Your task to perform on an android device: turn on showing notifications on the lock screen Image 0: 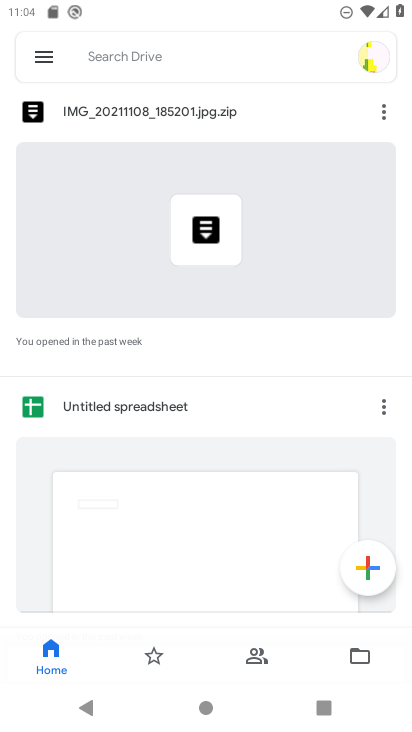
Step 0: press home button
Your task to perform on an android device: turn on showing notifications on the lock screen Image 1: 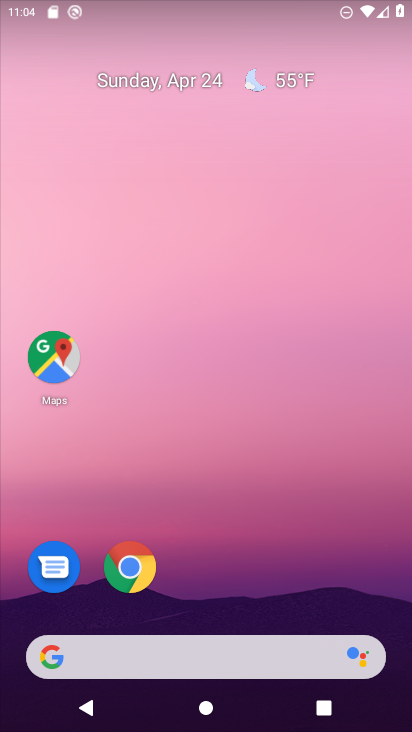
Step 1: drag from (390, 502) to (352, 218)
Your task to perform on an android device: turn on showing notifications on the lock screen Image 2: 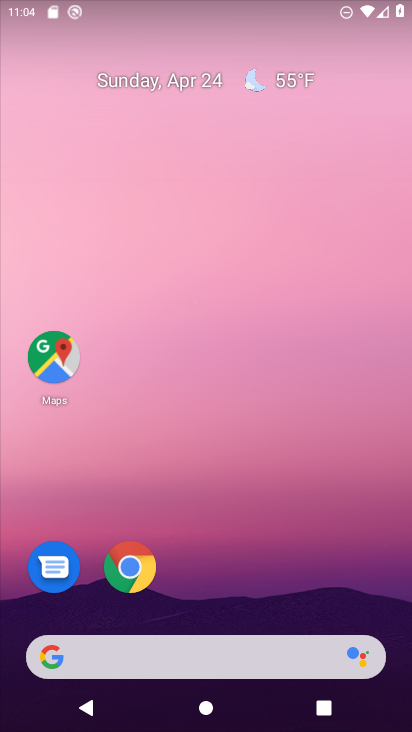
Step 2: drag from (393, 644) to (355, 239)
Your task to perform on an android device: turn on showing notifications on the lock screen Image 3: 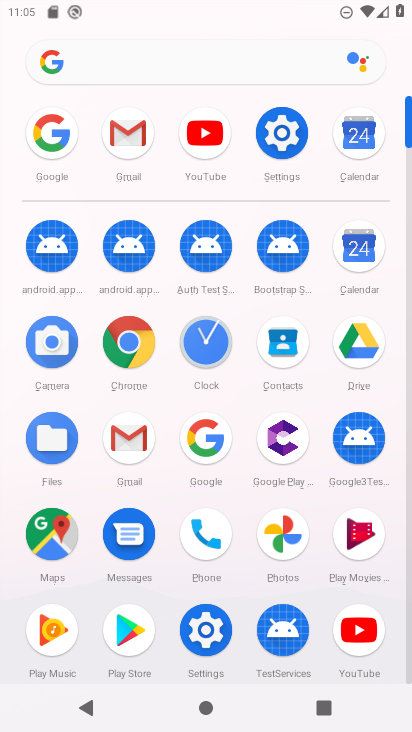
Step 3: click (279, 124)
Your task to perform on an android device: turn on showing notifications on the lock screen Image 4: 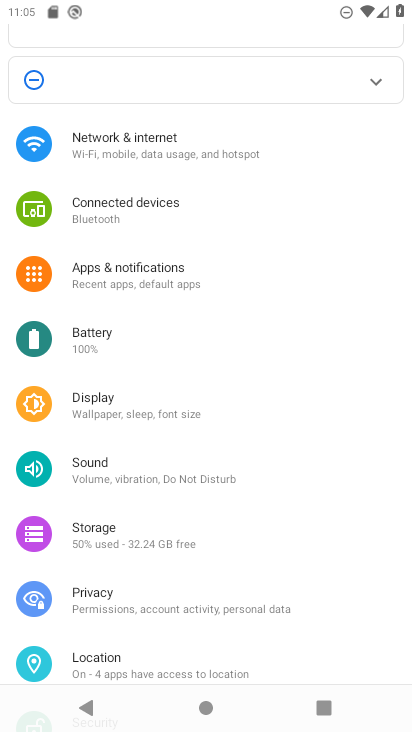
Step 4: click (143, 263)
Your task to perform on an android device: turn on showing notifications on the lock screen Image 5: 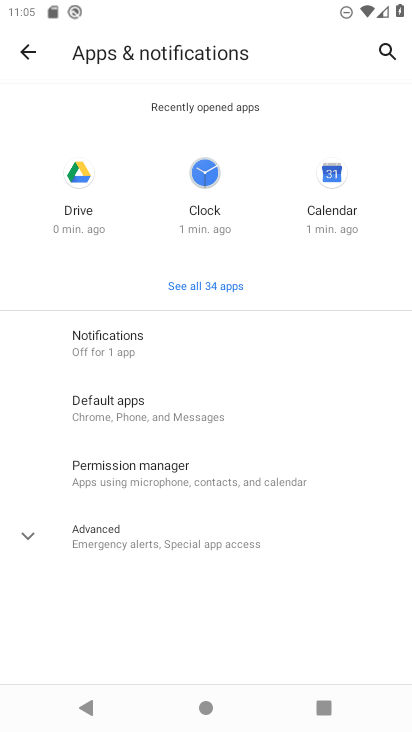
Step 5: click (106, 346)
Your task to perform on an android device: turn on showing notifications on the lock screen Image 6: 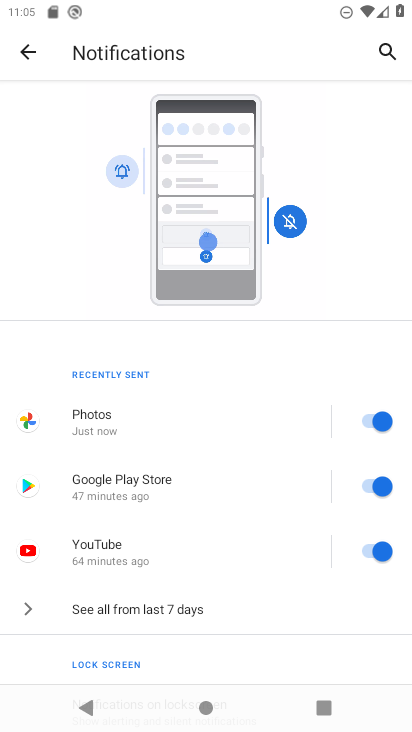
Step 6: drag from (246, 631) to (253, 299)
Your task to perform on an android device: turn on showing notifications on the lock screen Image 7: 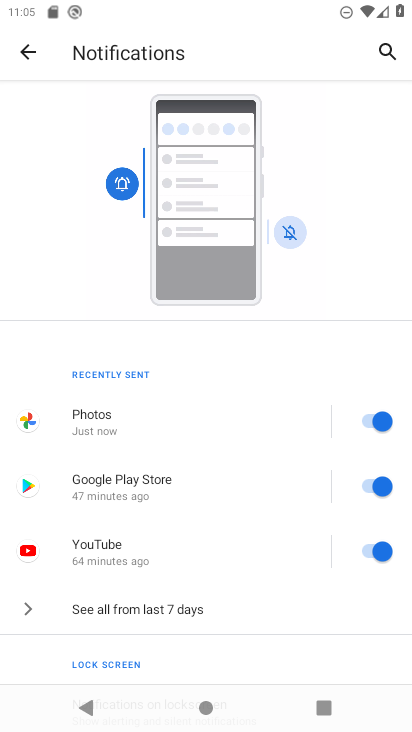
Step 7: click (225, 165)
Your task to perform on an android device: turn on showing notifications on the lock screen Image 8: 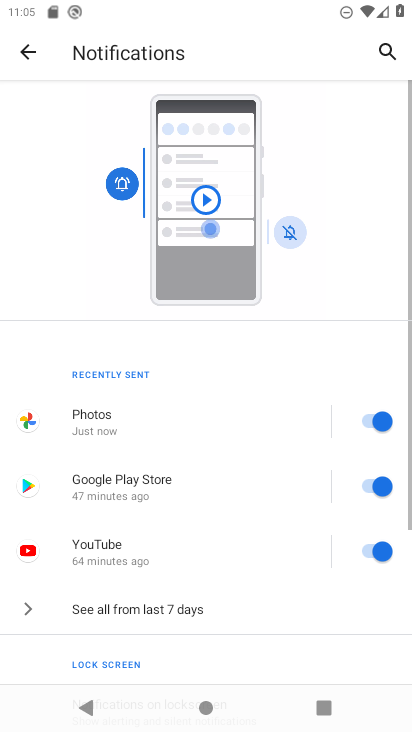
Step 8: click (243, 77)
Your task to perform on an android device: turn on showing notifications on the lock screen Image 9: 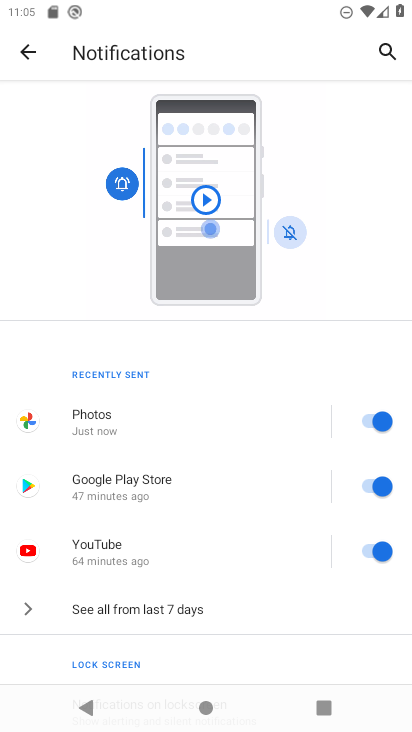
Step 9: drag from (260, 637) to (223, 199)
Your task to perform on an android device: turn on showing notifications on the lock screen Image 10: 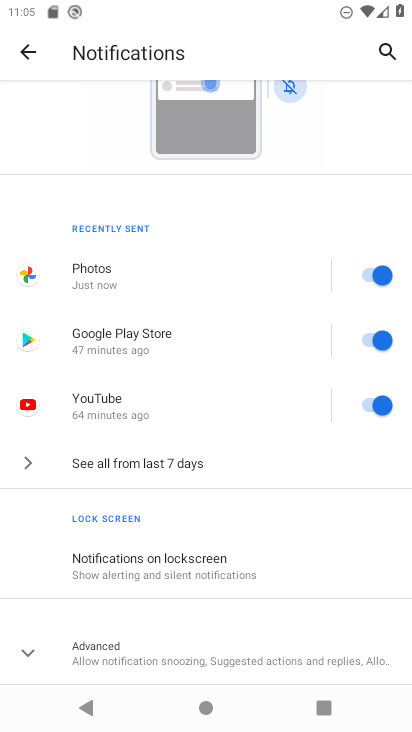
Step 10: click (116, 557)
Your task to perform on an android device: turn on showing notifications on the lock screen Image 11: 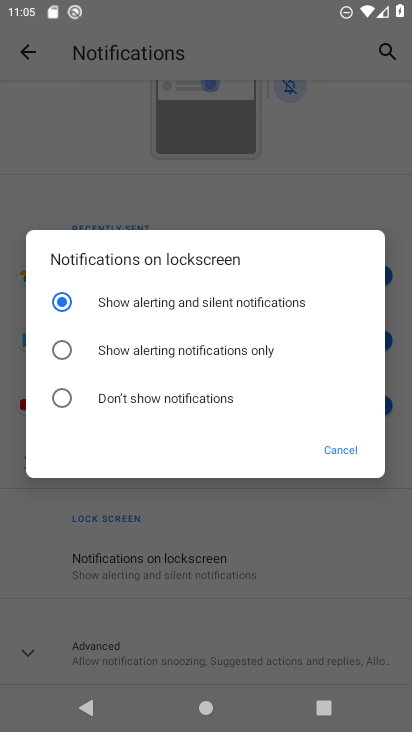
Step 11: task complete